Your task to perform on an android device: Open location settings Image 0: 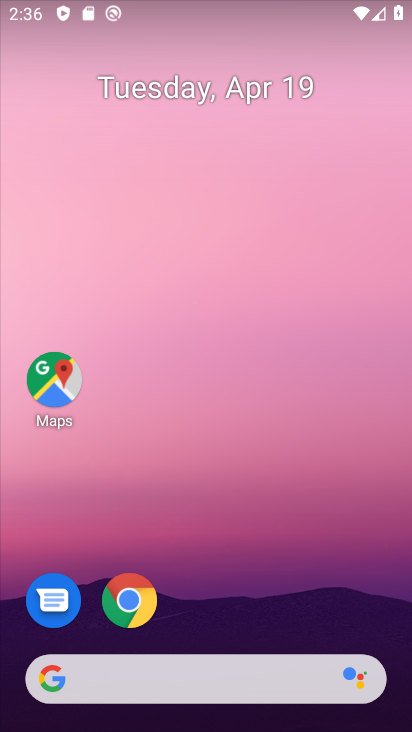
Step 0: drag from (201, 657) to (291, 142)
Your task to perform on an android device: Open location settings Image 1: 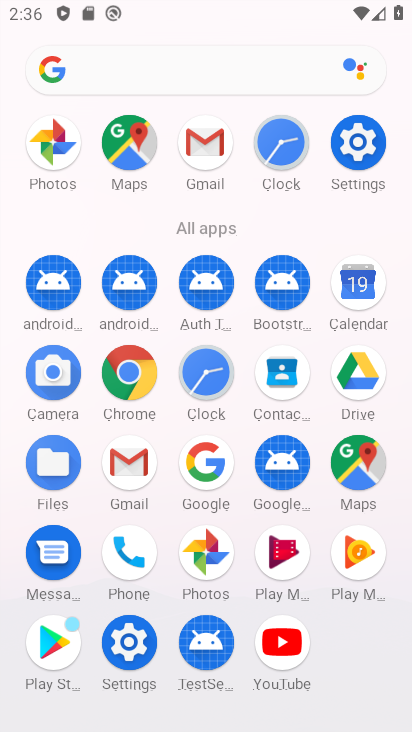
Step 1: click (361, 138)
Your task to perform on an android device: Open location settings Image 2: 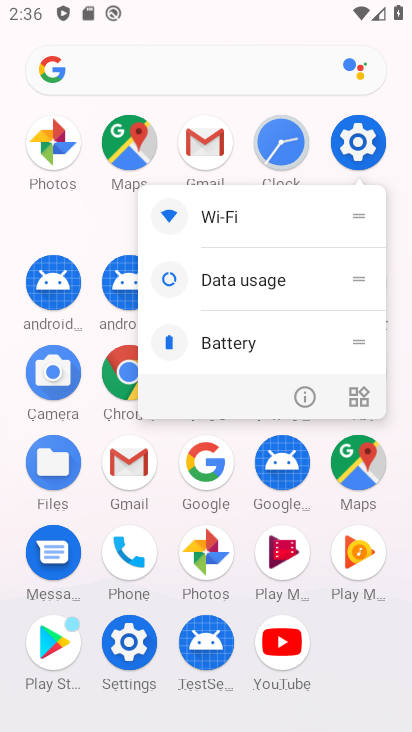
Step 2: click (359, 148)
Your task to perform on an android device: Open location settings Image 3: 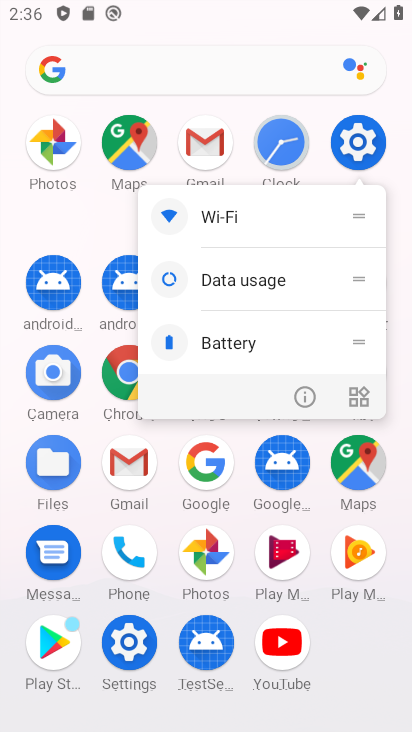
Step 3: click (359, 148)
Your task to perform on an android device: Open location settings Image 4: 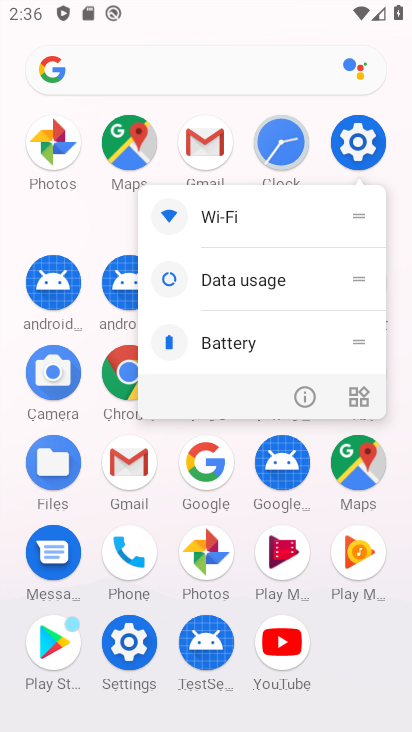
Step 4: click (350, 148)
Your task to perform on an android device: Open location settings Image 5: 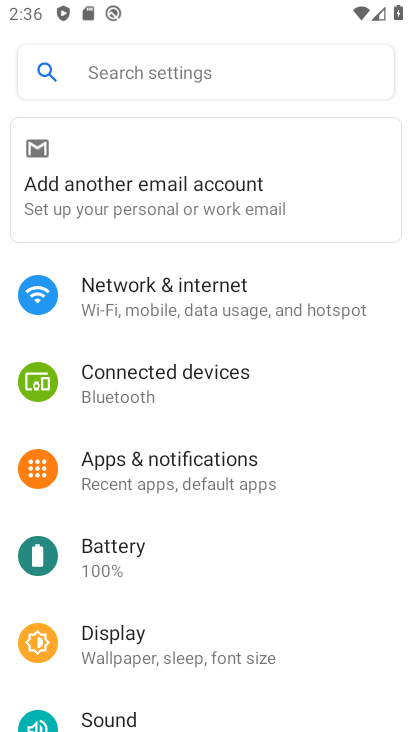
Step 5: drag from (231, 470) to (341, 254)
Your task to perform on an android device: Open location settings Image 6: 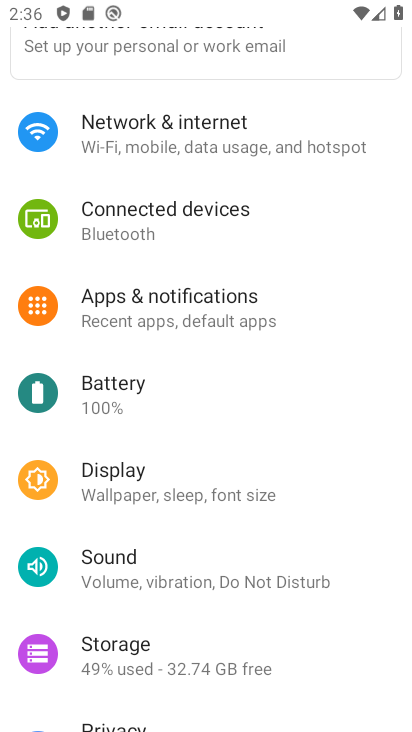
Step 6: drag from (211, 646) to (358, 290)
Your task to perform on an android device: Open location settings Image 7: 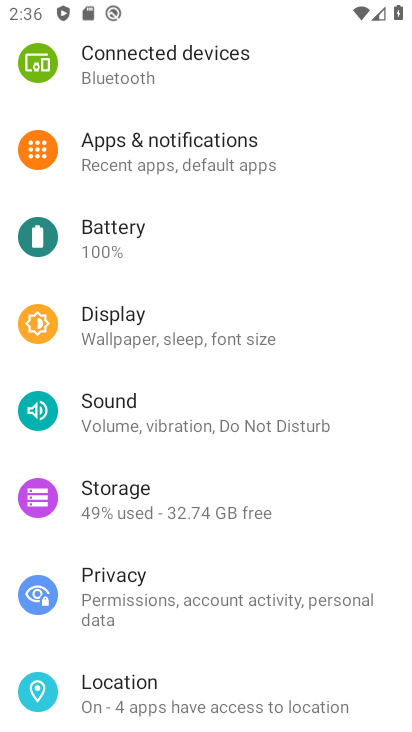
Step 7: click (141, 682)
Your task to perform on an android device: Open location settings Image 8: 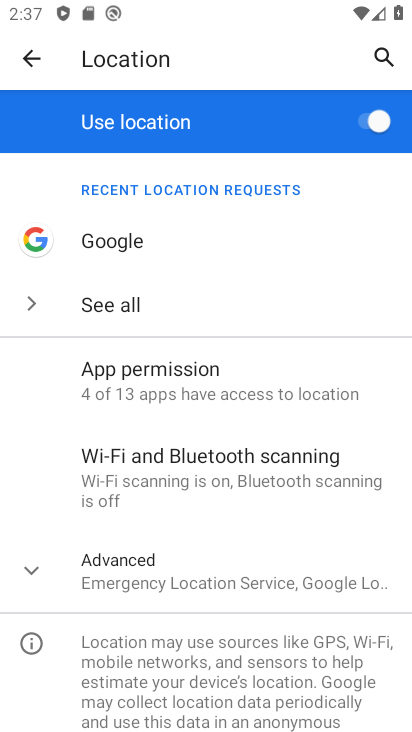
Step 8: task complete